Your task to perform on an android device: turn off location Image 0: 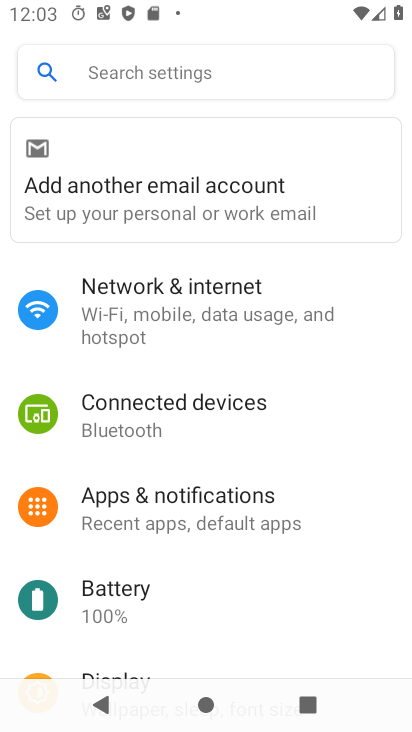
Step 0: drag from (318, 605) to (338, 319)
Your task to perform on an android device: turn off location Image 1: 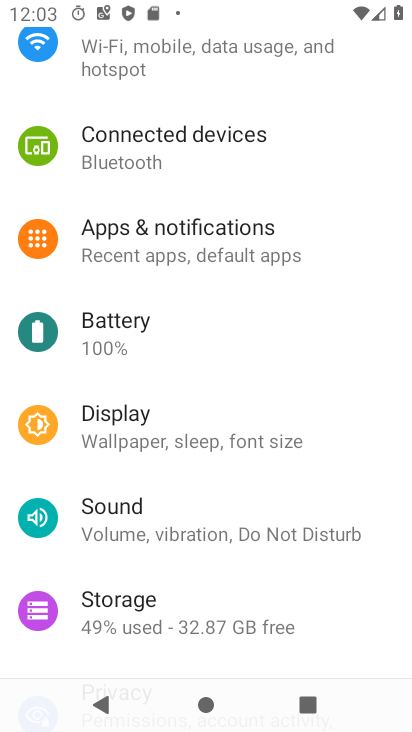
Step 1: drag from (306, 576) to (311, 315)
Your task to perform on an android device: turn off location Image 2: 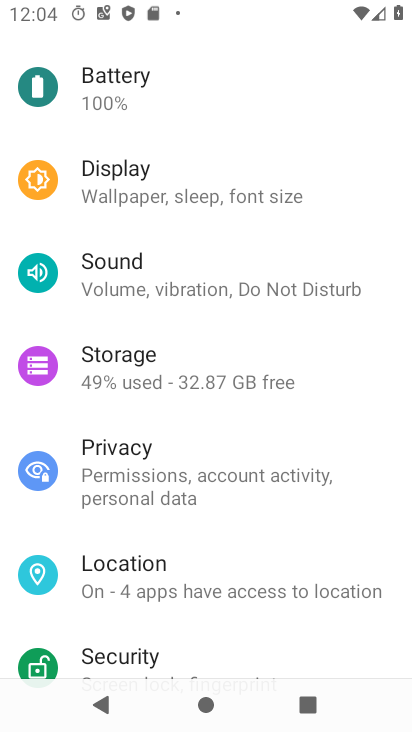
Step 2: click (206, 585)
Your task to perform on an android device: turn off location Image 3: 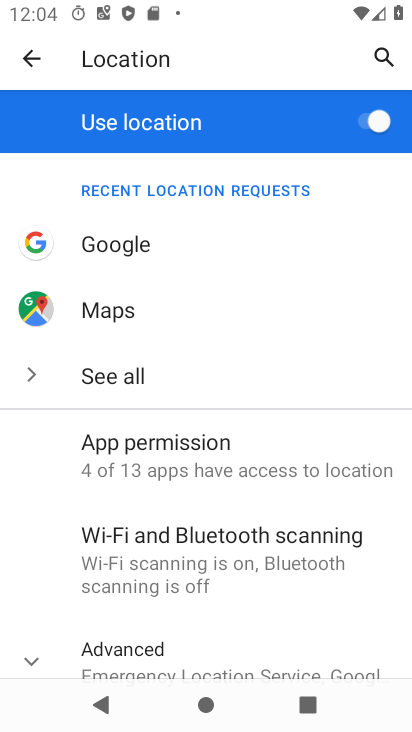
Step 3: drag from (326, 620) to (373, 624)
Your task to perform on an android device: turn off location Image 4: 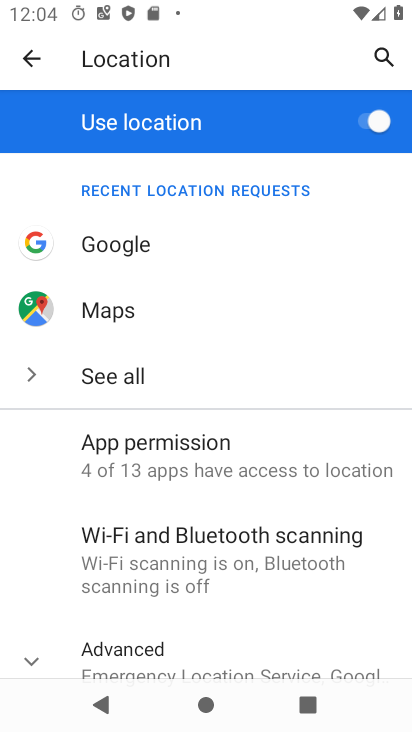
Step 4: click (365, 114)
Your task to perform on an android device: turn off location Image 5: 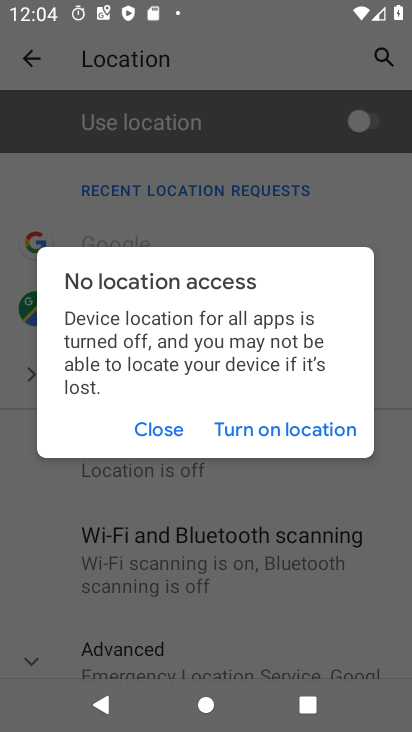
Step 5: click (147, 437)
Your task to perform on an android device: turn off location Image 6: 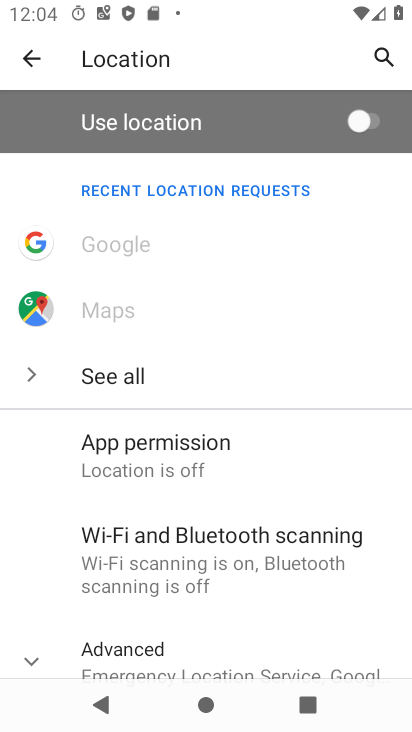
Step 6: task complete